Your task to perform on an android device: turn off javascript in the chrome app Image 0: 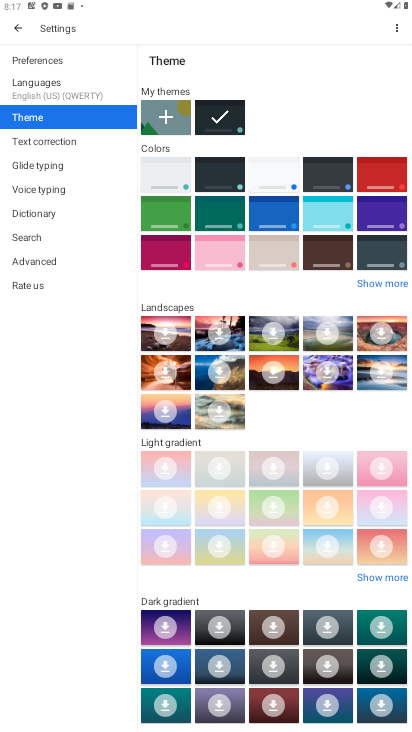
Step 0: press home button
Your task to perform on an android device: turn off javascript in the chrome app Image 1: 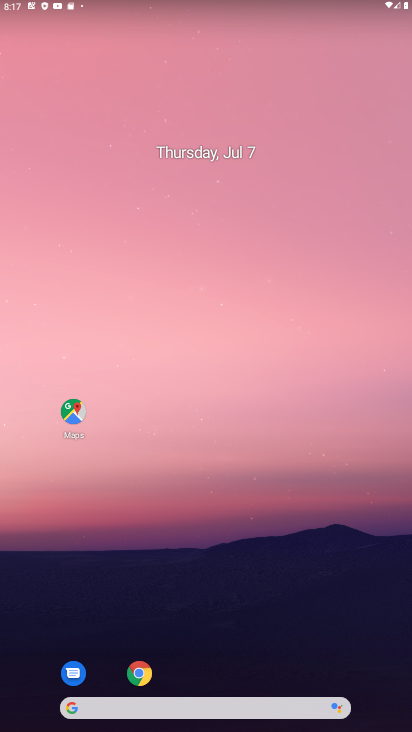
Step 1: drag from (250, 667) to (271, 77)
Your task to perform on an android device: turn off javascript in the chrome app Image 2: 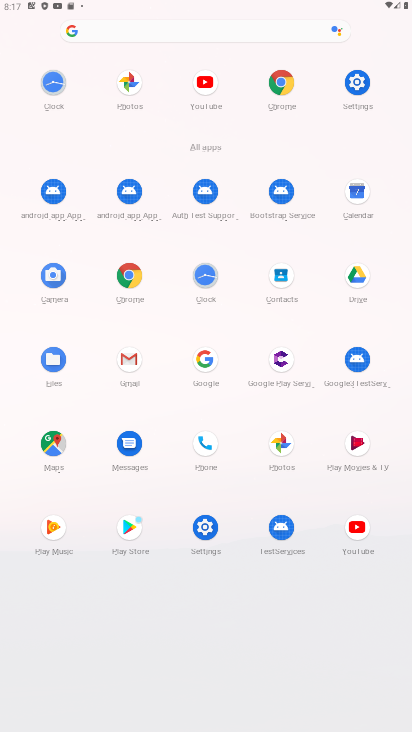
Step 2: click (284, 90)
Your task to perform on an android device: turn off javascript in the chrome app Image 3: 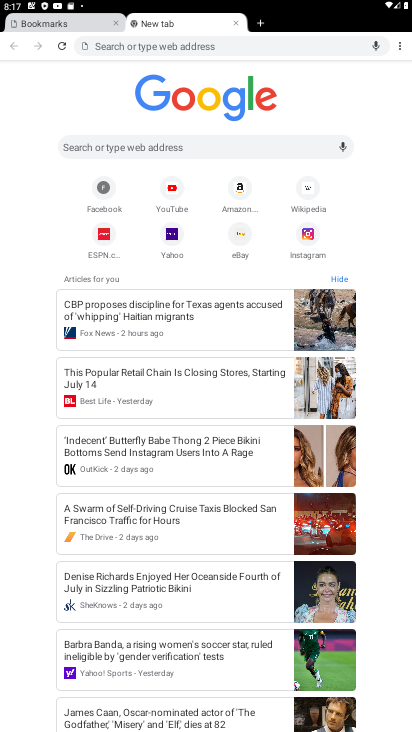
Step 3: drag from (397, 41) to (315, 209)
Your task to perform on an android device: turn off javascript in the chrome app Image 4: 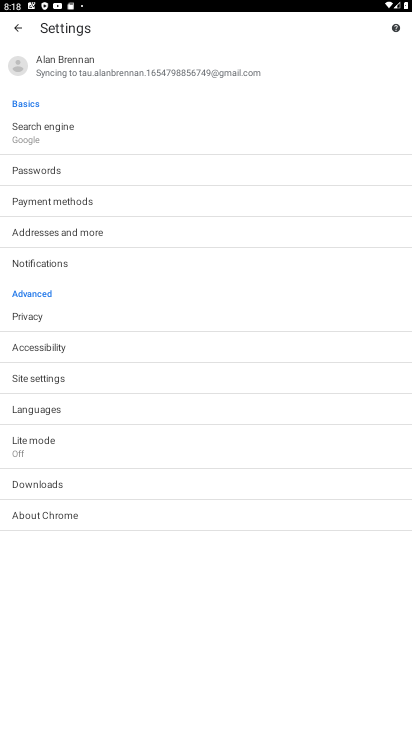
Step 4: click (44, 375)
Your task to perform on an android device: turn off javascript in the chrome app Image 5: 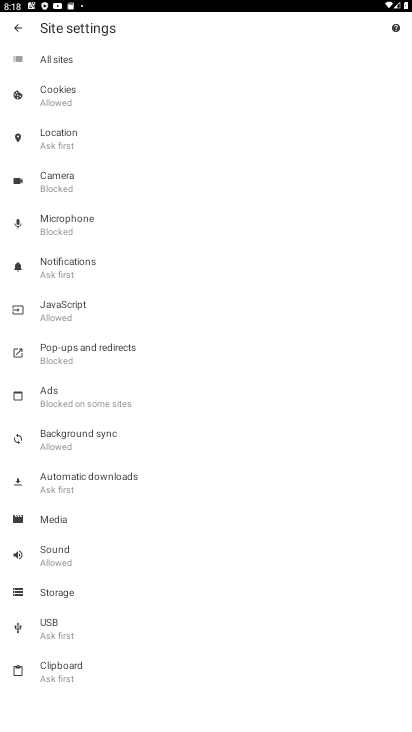
Step 5: click (54, 308)
Your task to perform on an android device: turn off javascript in the chrome app Image 6: 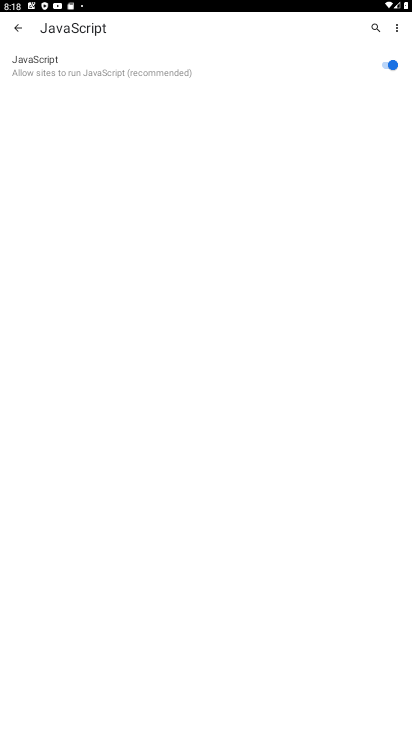
Step 6: click (391, 60)
Your task to perform on an android device: turn off javascript in the chrome app Image 7: 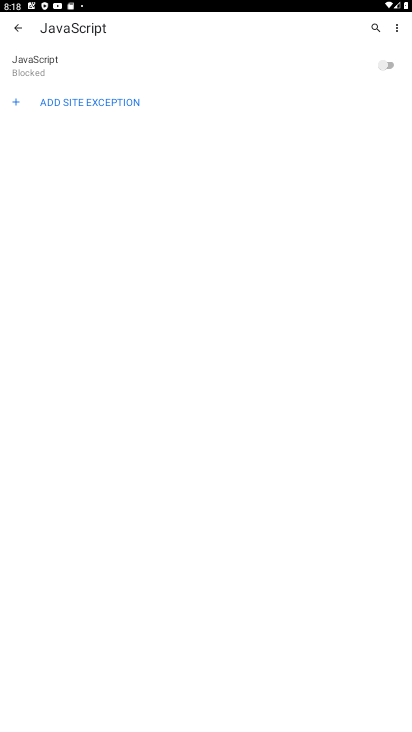
Step 7: task complete